Your task to perform on an android device: add a contact Image 0: 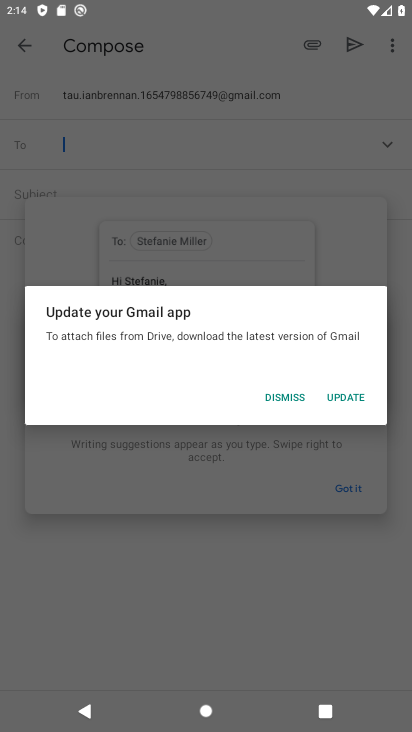
Step 0: click (291, 394)
Your task to perform on an android device: add a contact Image 1: 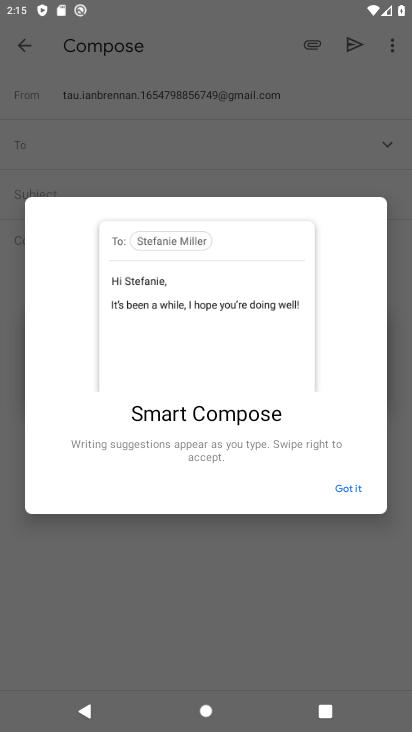
Step 1: click (357, 490)
Your task to perform on an android device: add a contact Image 2: 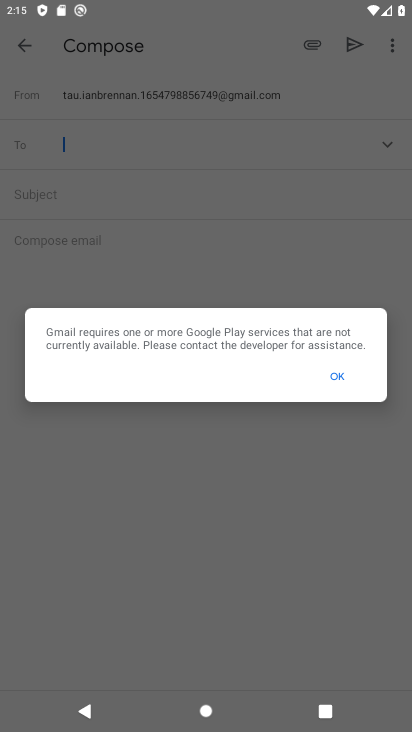
Step 2: click (340, 365)
Your task to perform on an android device: add a contact Image 3: 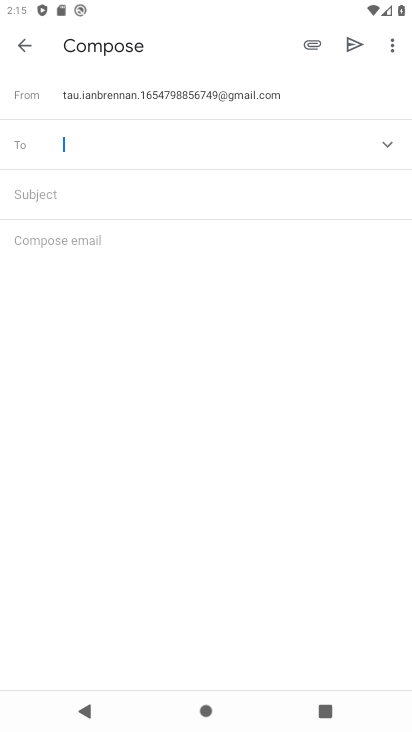
Step 3: press home button
Your task to perform on an android device: add a contact Image 4: 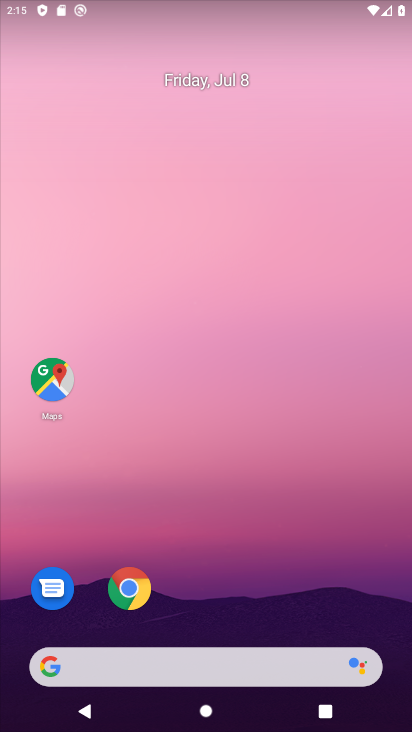
Step 4: drag from (199, 552) to (234, 297)
Your task to perform on an android device: add a contact Image 5: 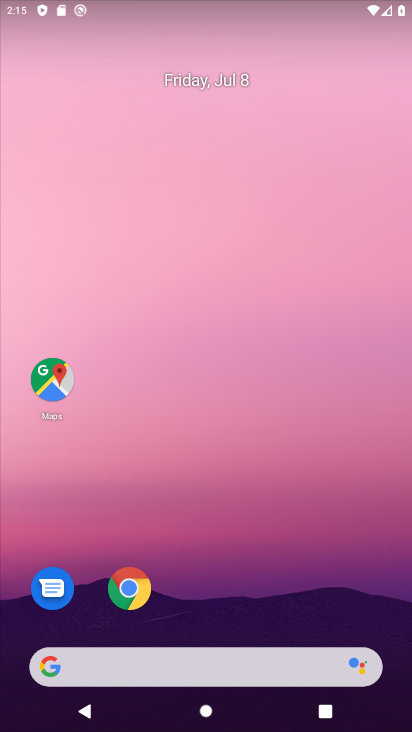
Step 5: drag from (206, 545) to (201, 192)
Your task to perform on an android device: add a contact Image 6: 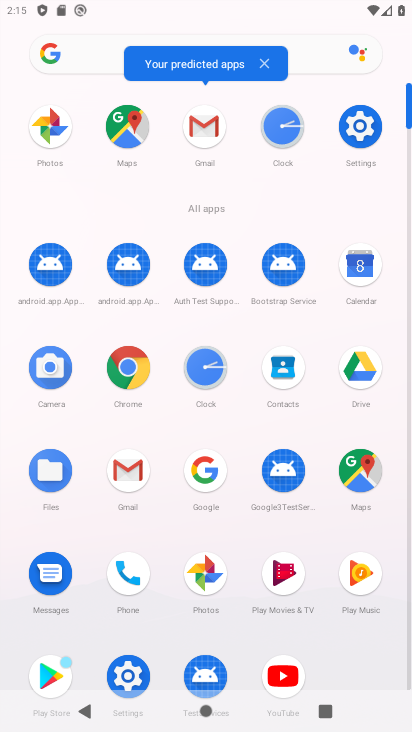
Step 6: click (282, 358)
Your task to perform on an android device: add a contact Image 7: 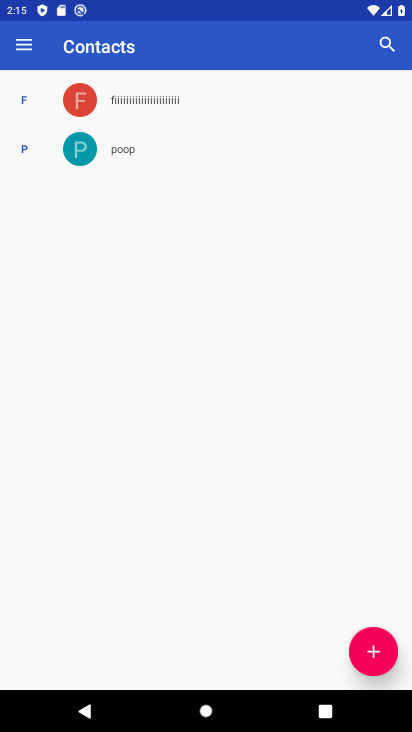
Step 7: click (368, 652)
Your task to perform on an android device: add a contact Image 8: 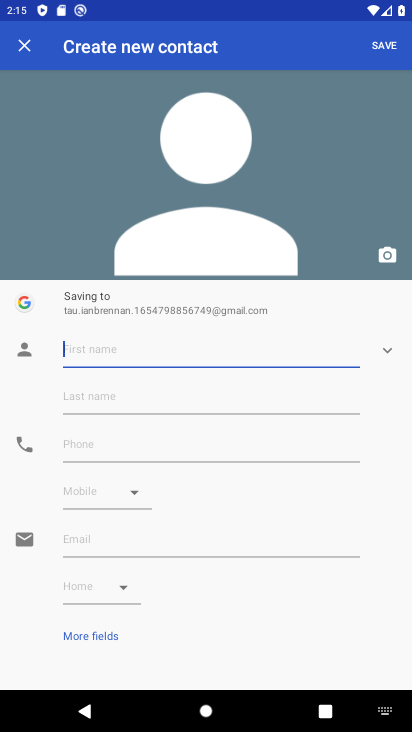
Step 8: click (176, 351)
Your task to perform on an android device: add a contact Image 9: 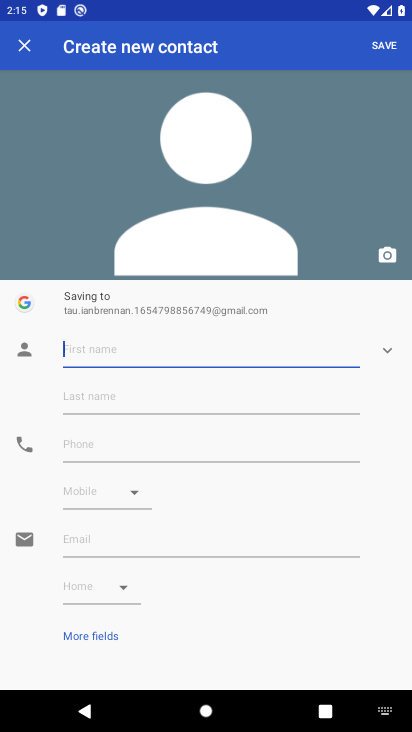
Step 9: type "Ranjan"
Your task to perform on an android device: add a contact Image 10: 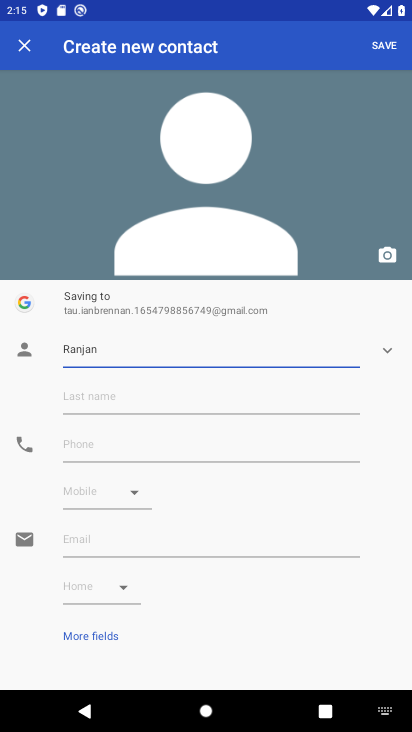
Step 10: click (101, 405)
Your task to perform on an android device: add a contact Image 11: 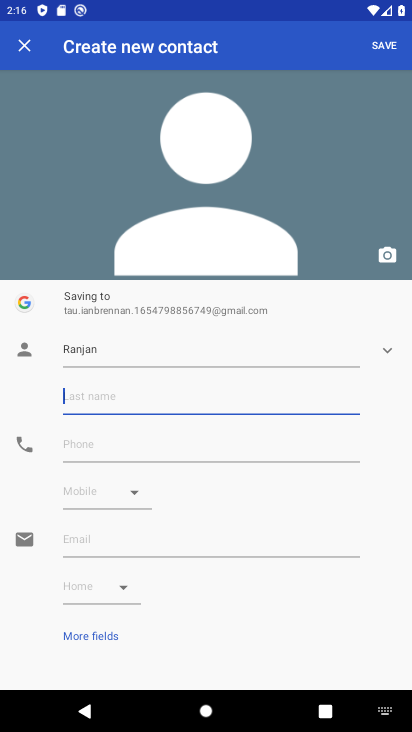
Step 11: click (124, 449)
Your task to perform on an android device: add a contact Image 12: 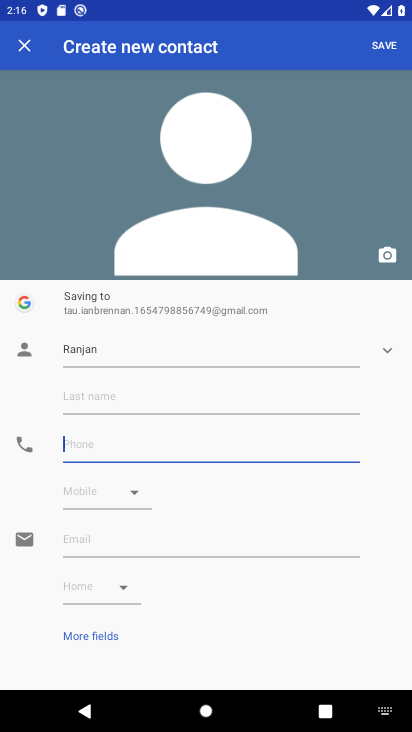
Step 12: type "7878878778"
Your task to perform on an android device: add a contact Image 13: 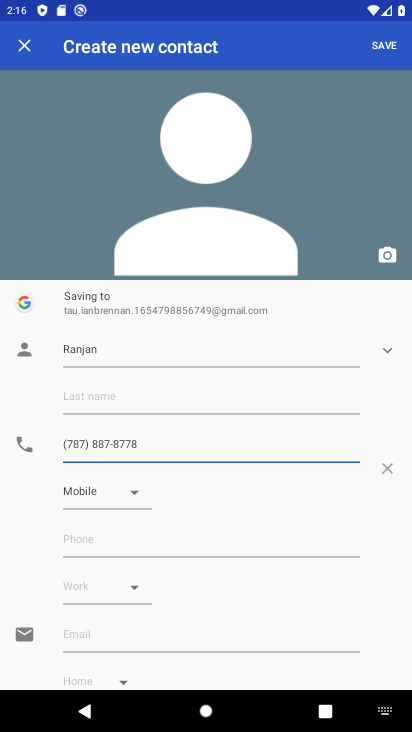
Step 13: click (372, 46)
Your task to perform on an android device: add a contact Image 14: 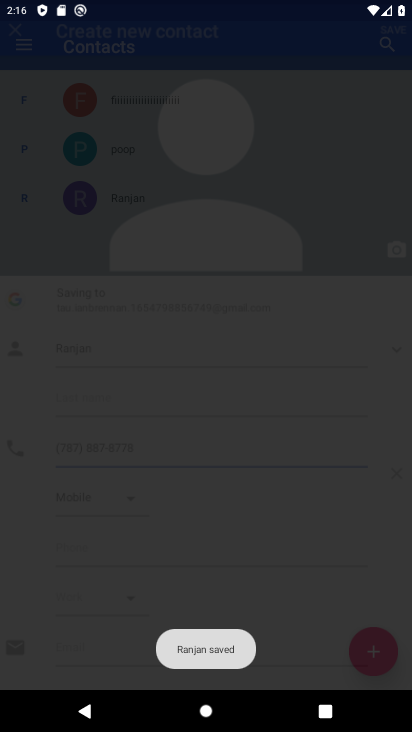
Step 14: click (388, 48)
Your task to perform on an android device: add a contact Image 15: 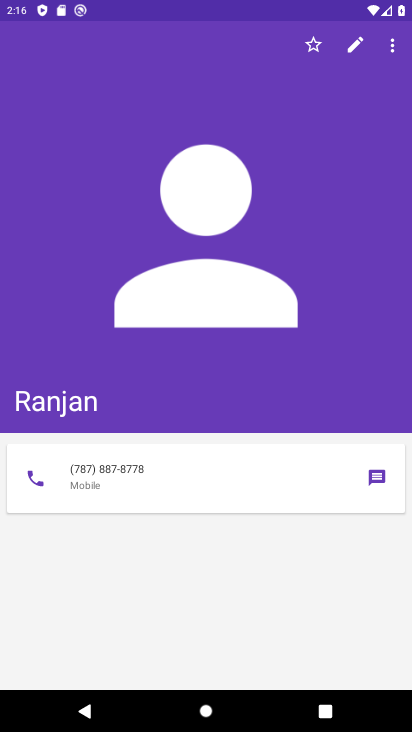
Step 15: task complete